Your task to perform on an android device: Open Google Maps Image 0: 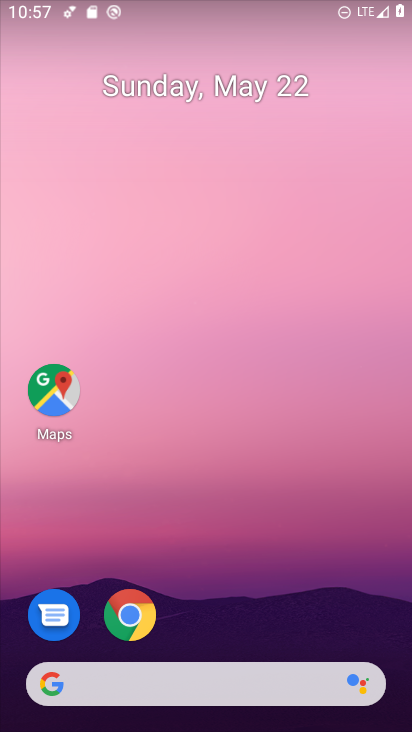
Step 0: click (62, 390)
Your task to perform on an android device: Open Google Maps Image 1: 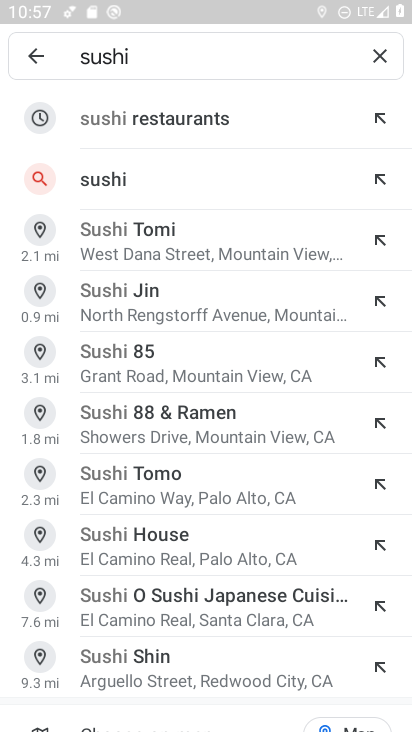
Step 1: task complete